Your task to perform on an android device: Open Youtube and go to "Your channel" Image 0: 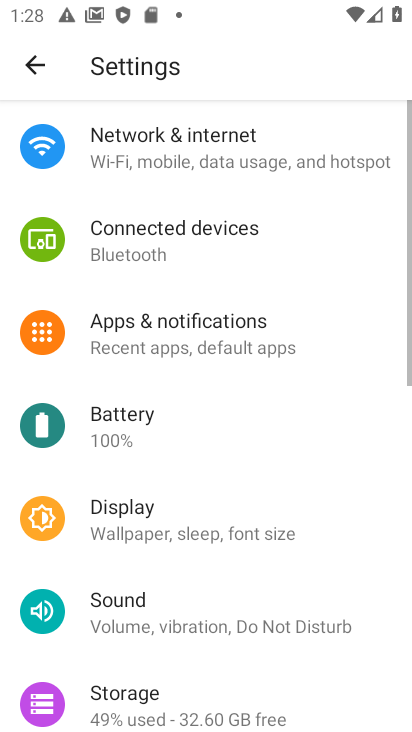
Step 0: press home button
Your task to perform on an android device: Open Youtube and go to "Your channel" Image 1: 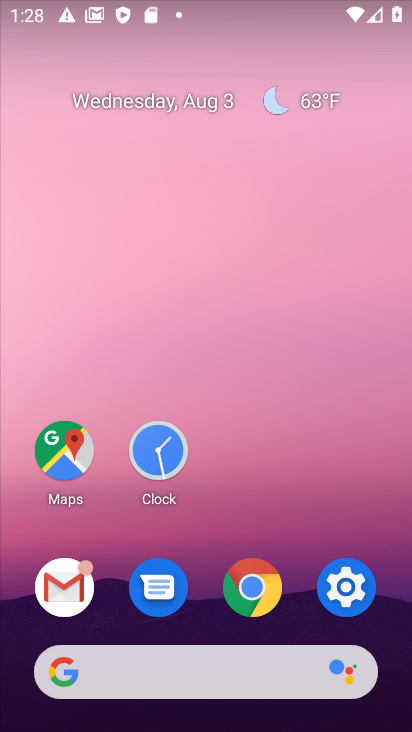
Step 1: drag from (269, 543) to (156, 40)
Your task to perform on an android device: Open Youtube and go to "Your channel" Image 2: 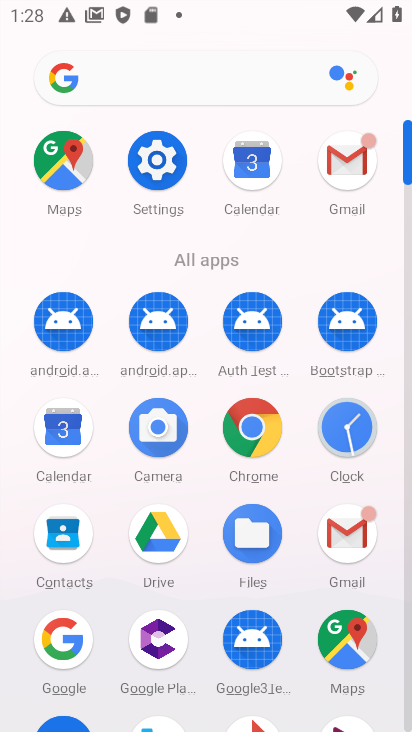
Step 2: click (400, 343)
Your task to perform on an android device: Open Youtube and go to "Your channel" Image 3: 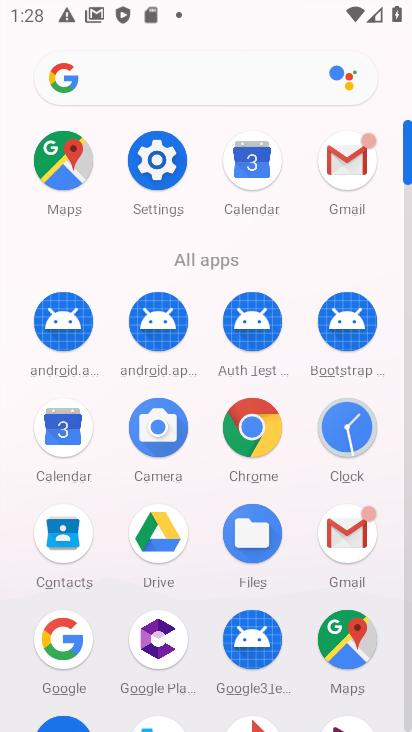
Step 3: click (403, 678)
Your task to perform on an android device: Open Youtube and go to "Your channel" Image 4: 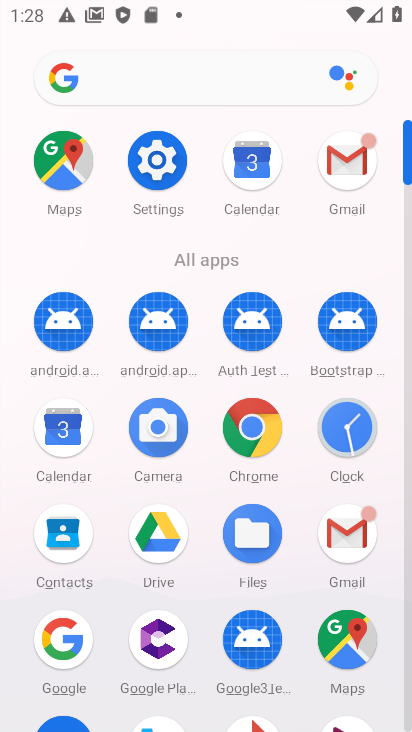
Step 4: click (403, 678)
Your task to perform on an android device: Open Youtube and go to "Your channel" Image 5: 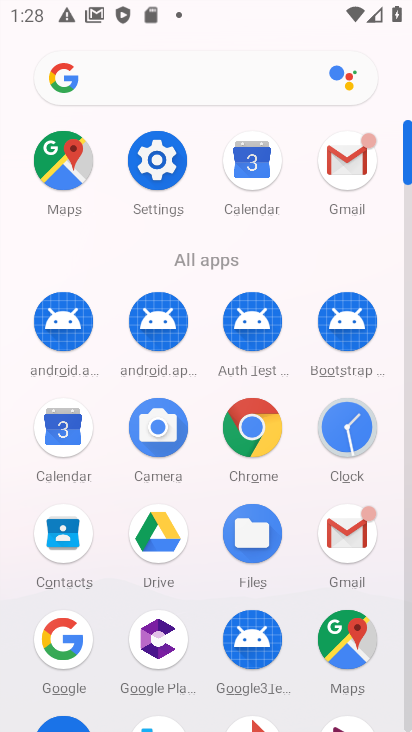
Step 5: click (405, 606)
Your task to perform on an android device: Open Youtube and go to "Your channel" Image 6: 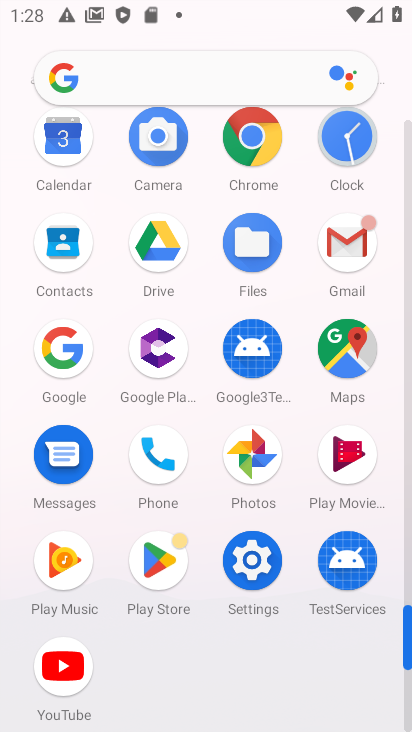
Step 6: drag from (295, 672) to (169, 27)
Your task to perform on an android device: Open Youtube and go to "Your channel" Image 7: 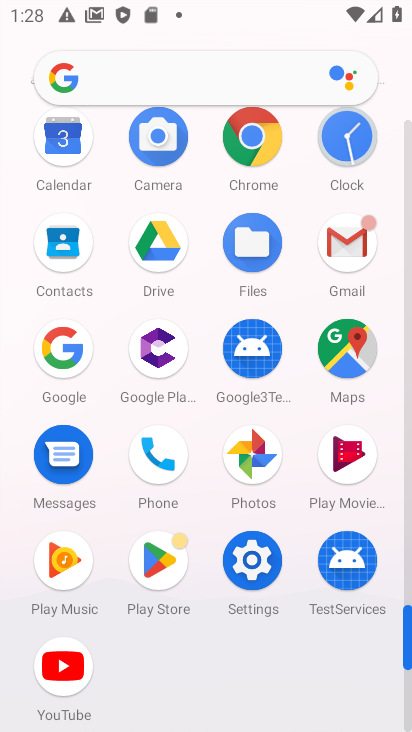
Step 7: click (57, 665)
Your task to perform on an android device: Open Youtube and go to "Your channel" Image 8: 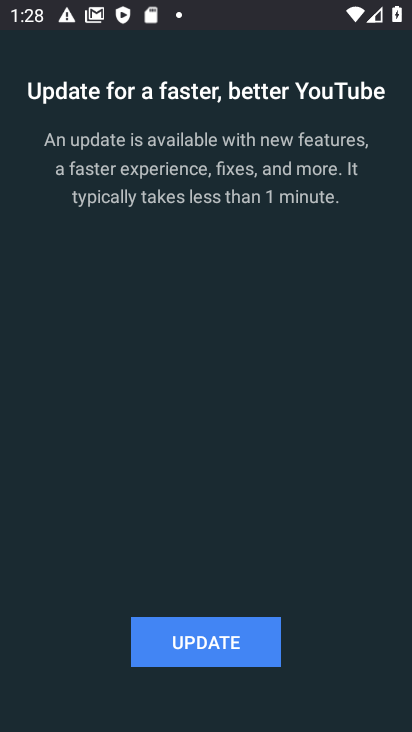
Step 8: click (75, 677)
Your task to perform on an android device: Open Youtube and go to "Your channel" Image 9: 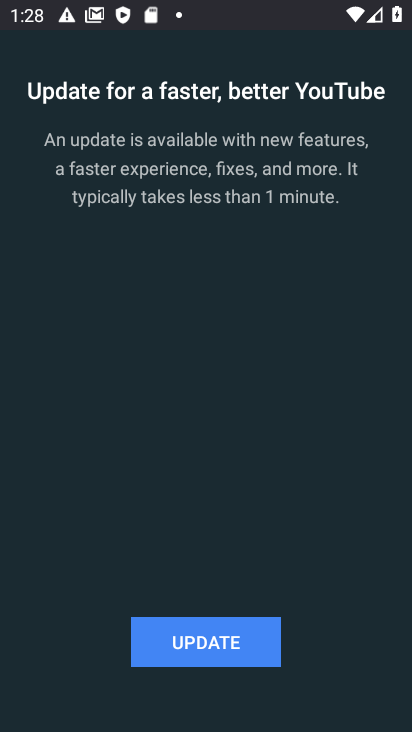
Step 9: click (153, 655)
Your task to perform on an android device: Open Youtube and go to "Your channel" Image 10: 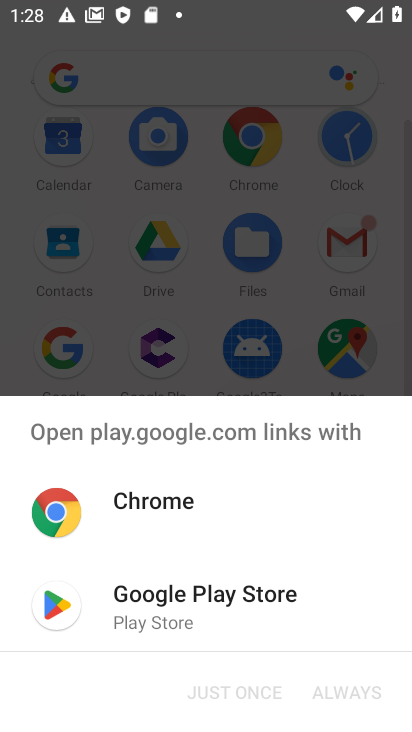
Step 10: click (158, 600)
Your task to perform on an android device: Open Youtube and go to "Your channel" Image 11: 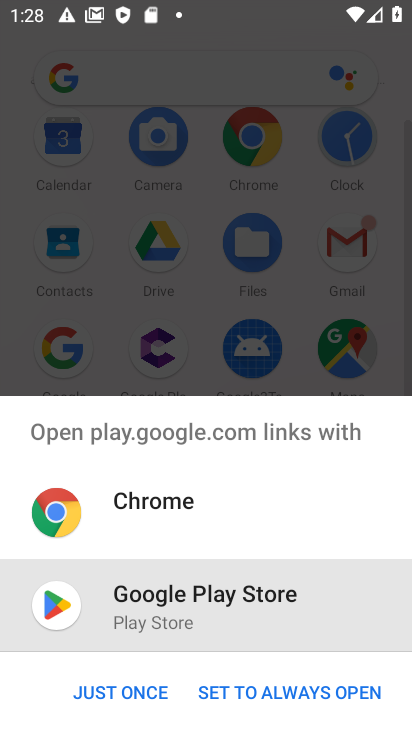
Step 11: click (110, 689)
Your task to perform on an android device: Open Youtube and go to "Your channel" Image 12: 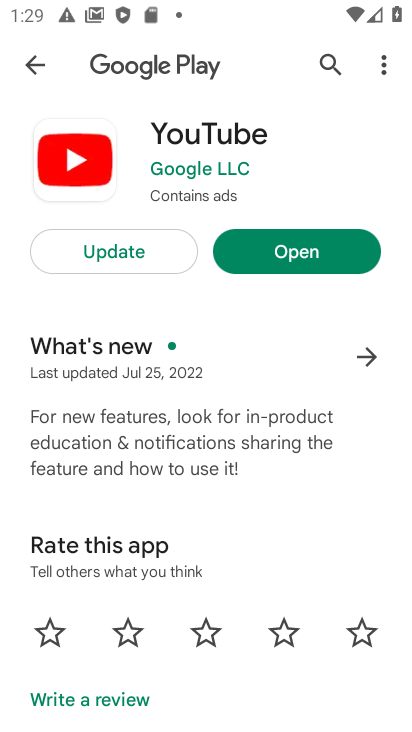
Step 12: click (82, 254)
Your task to perform on an android device: Open Youtube and go to "Your channel" Image 13: 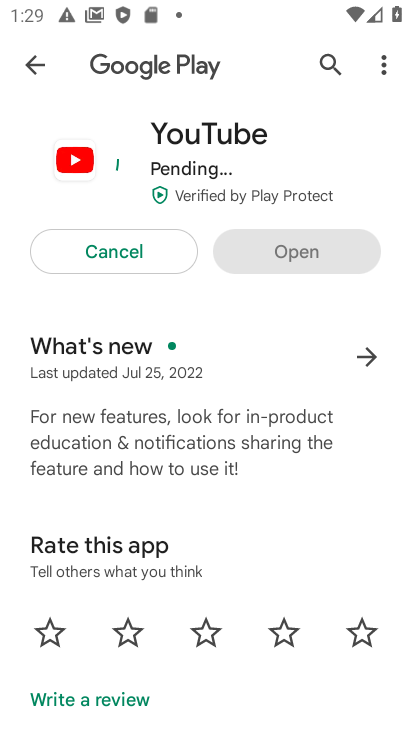
Step 13: click (111, 249)
Your task to perform on an android device: Open Youtube and go to "Your channel" Image 14: 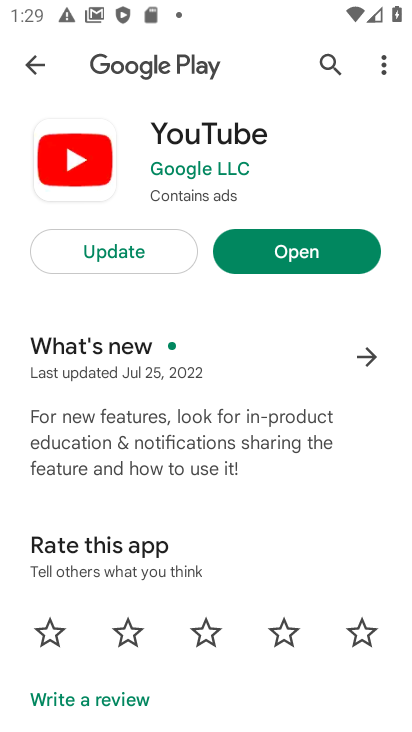
Step 14: click (113, 250)
Your task to perform on an android device: Open Youtube and go to "Your channel" Image 15: 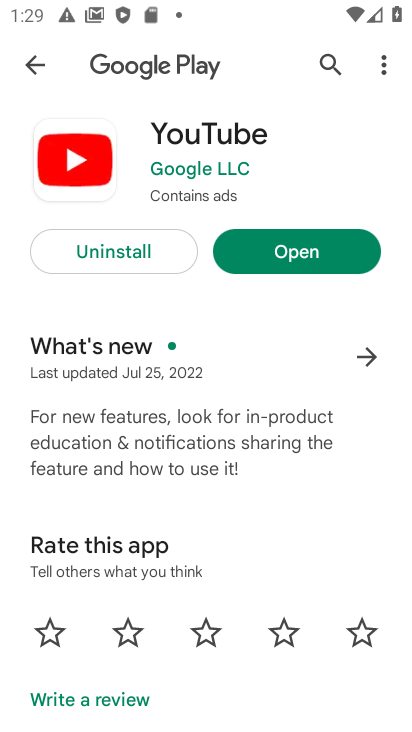
Step 15: click (260, 259)
Your task to perform on an android device: Open Youtube and go to "Your channel" Image 16: 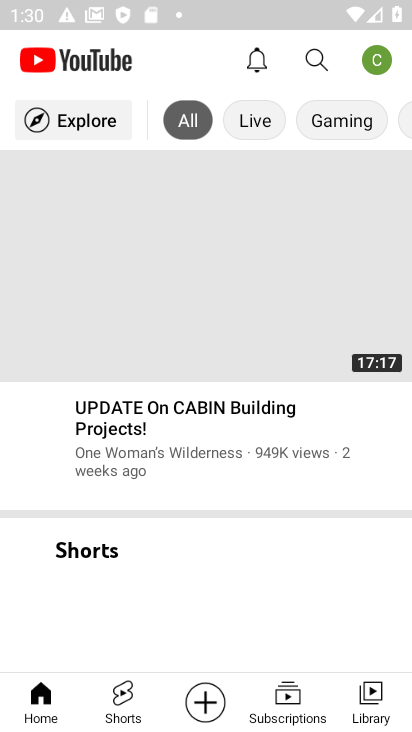
Step 16: click (377, 64)
Your task to perform on an android device: Open Youtube and go to "Your channel" Image 17: 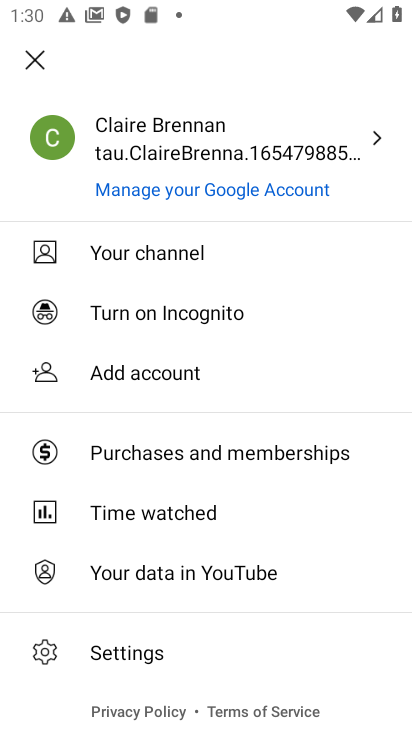
Step 17: click (130, 257)
Your task to perform on an android device: Open Youtube and go to "Your channel" Image 18: 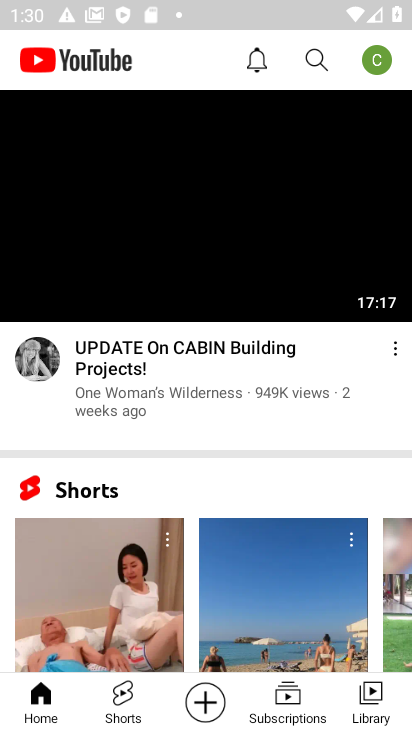
Step 18: click (375, 59)
Your task to perform on an android device: Open Youtube and go to "Your channel" Image 19: 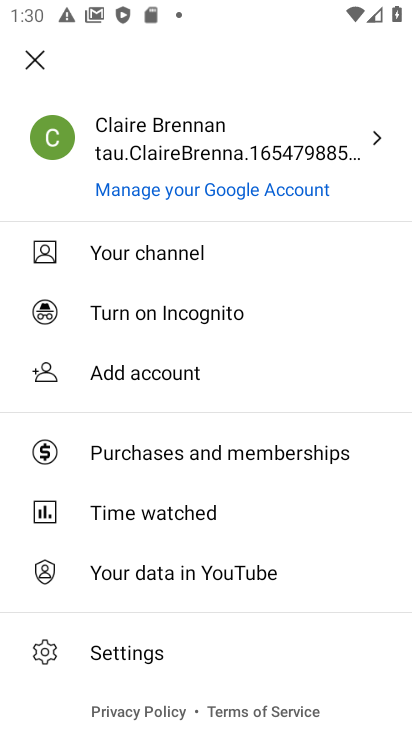
Step 19: click (146, 254)
Your task to perform on an android device: Open Youtube and go to "Your channel" Image 20: 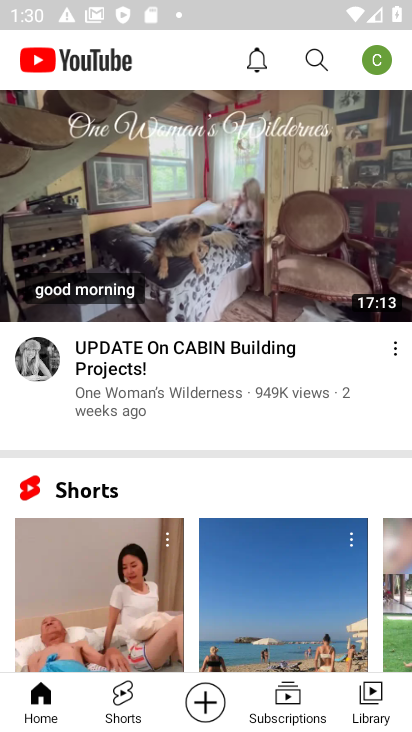
Step 20: task complete